Your task to perform on an android device: toggle javascript in the chrome app Image 0: 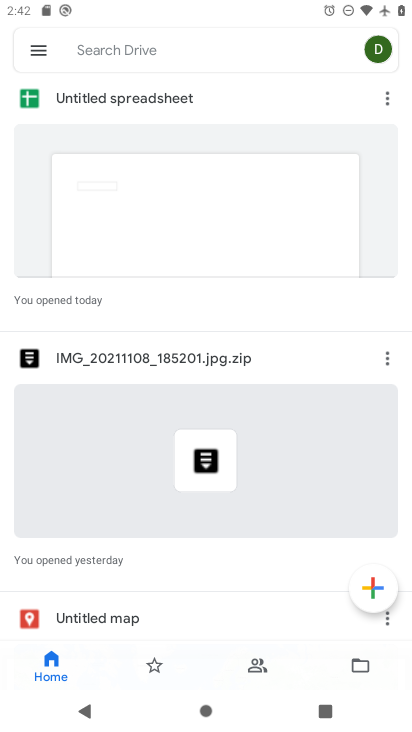
Step 0: press home button
Your task to perform on an android device: toggle javascript in the chrome app Image 1: 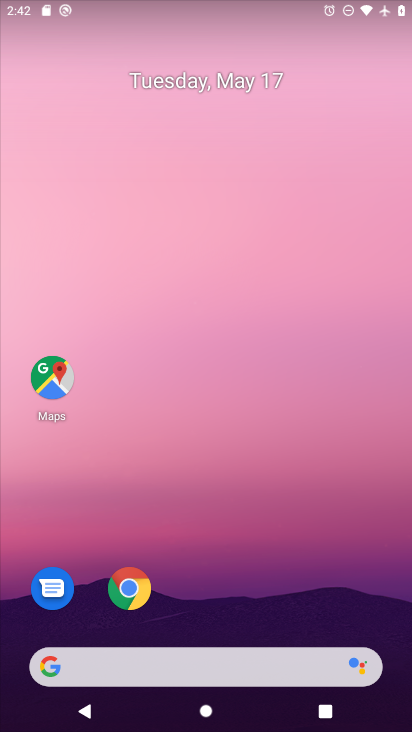
Step 1: click (125, 585)
Your task to perform on an android device: toggle javascript in the chrome app Image 2: 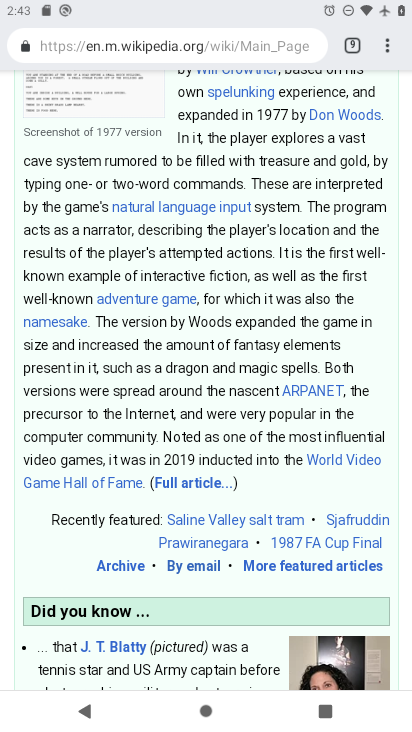
Step 2: click (387, 45)
Your task to perform on an android device: toggle javascript in the chrome app Image 3: 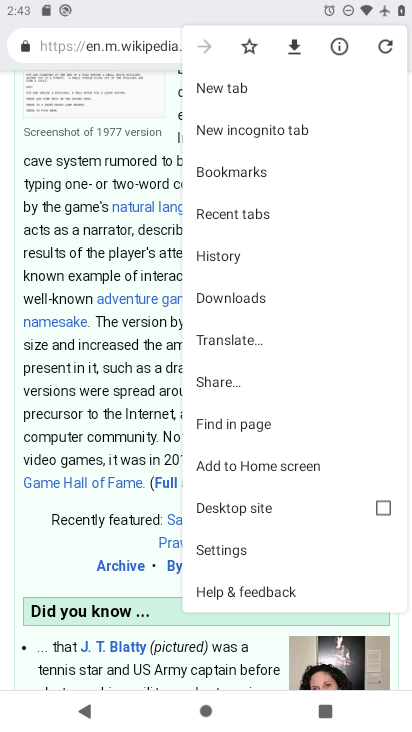
Step 3: click (217, 546)
Your task to perform on an android device: toggle javascript in the chrome app Image 4: 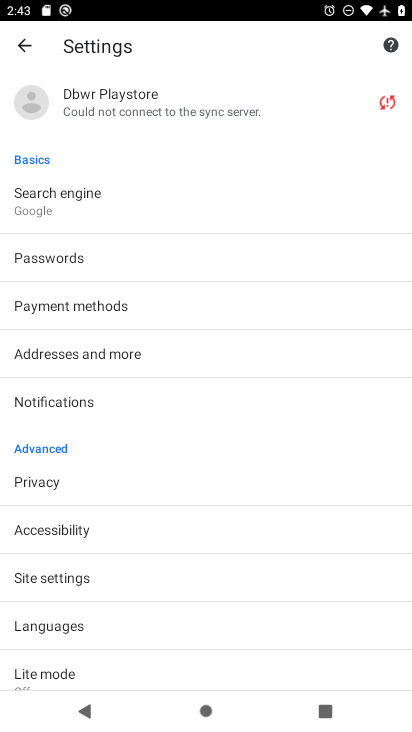
Step 4: click (60, 579)
Your task to perform on an android device: toggle javascript in the chrome app Image 5: 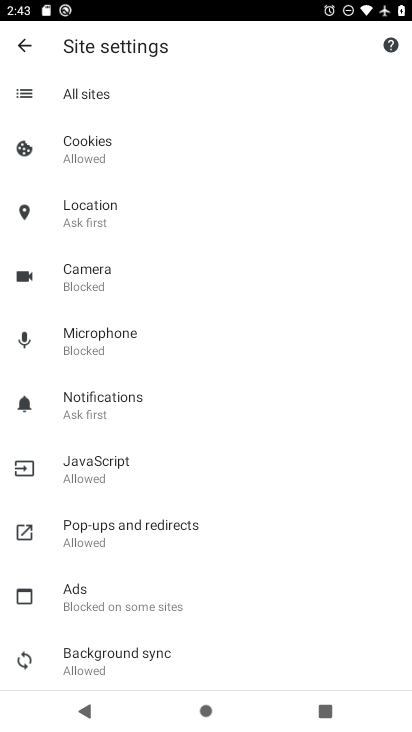
Step 5: click (98, 468)
Your task to perform on an android device: toggle javascript in the chrome app Image 6: 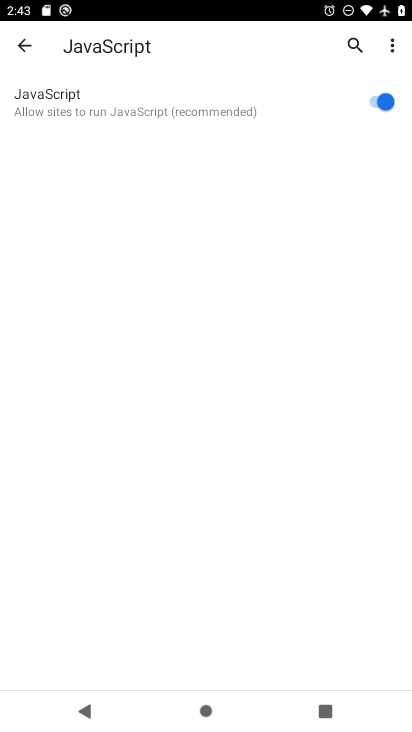
Step 6: click (374, 98)
Your task to perform on an android device: toggle javascript in the chrome app Image 7: 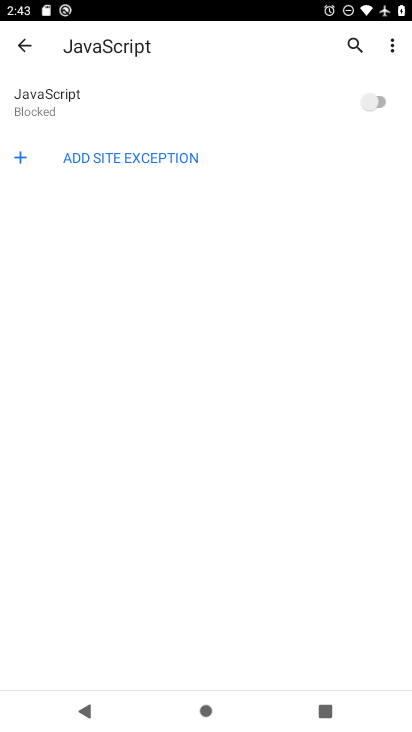
Step 7: task complete